Your task to perform on an android device: stop showing notifications on the lock screen Image 0: 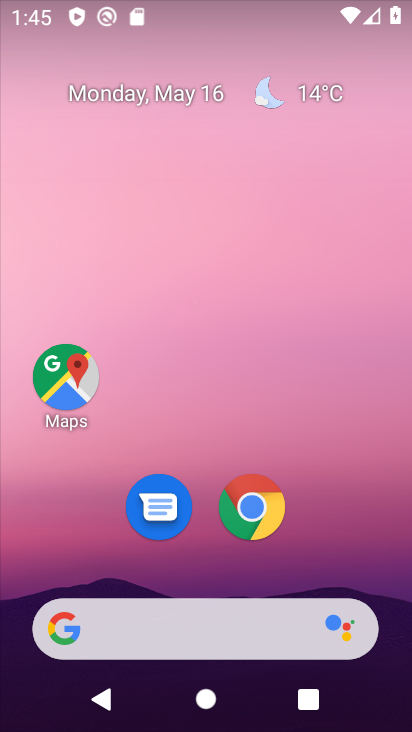
Step 0: drag from (193, 570) to (223, 135)
Your task to perform on an android device: stop showing notifications on the lock screen Image 1: 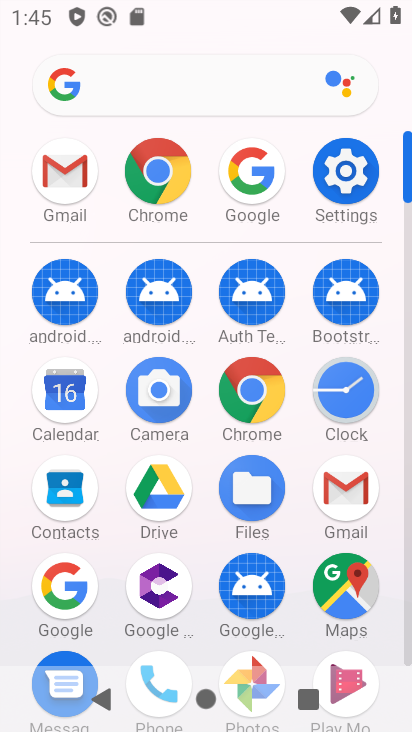
Step 1: click (333, 190)
Your task to perform on an android device: stop showing notifications on the lock screen Image 2: 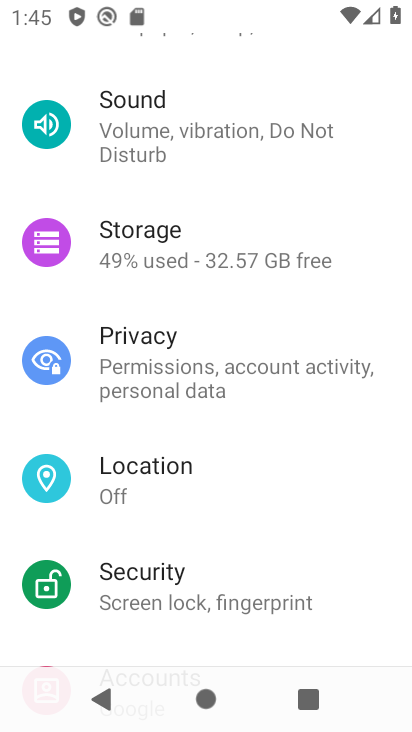
Step 2: click (345, 186)
Your task to perform on an android device: stop showing notifications on the lock screen Image 3: 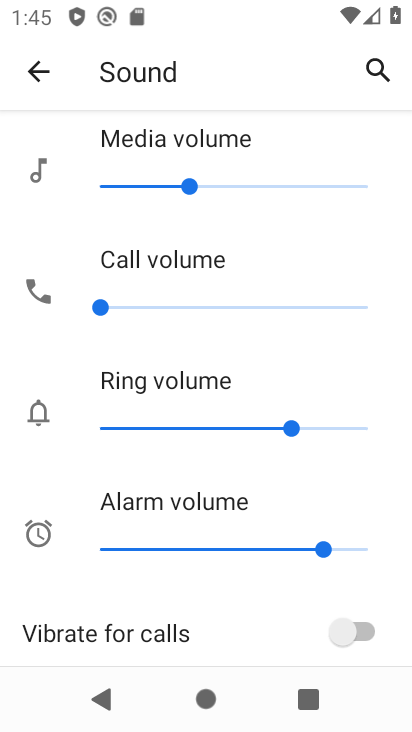
Step 3: click (48, 78)
Your task to perform on an android device: stop showing notifications on the lock screen Image 4: 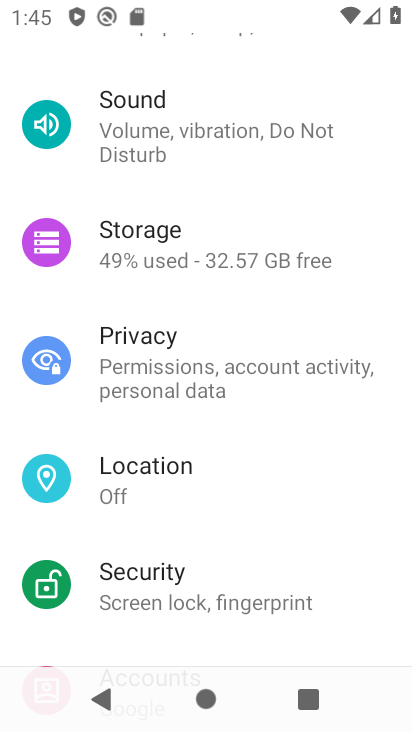
Step 4: drag from (215, 514) to (218, 630)
Your task to perform on an android device: stop showing notifications on the lock screen Image 5: 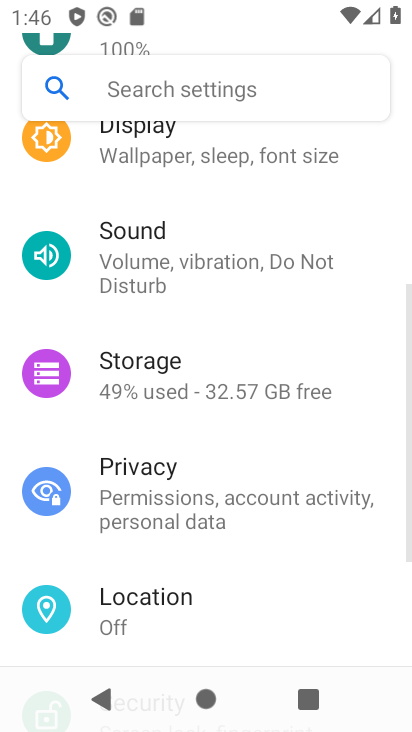
Step 5: drag from (249, 266) to (223, 579)
Your task to perform on an android device: stop showing notifications on the lock screen Image 6: 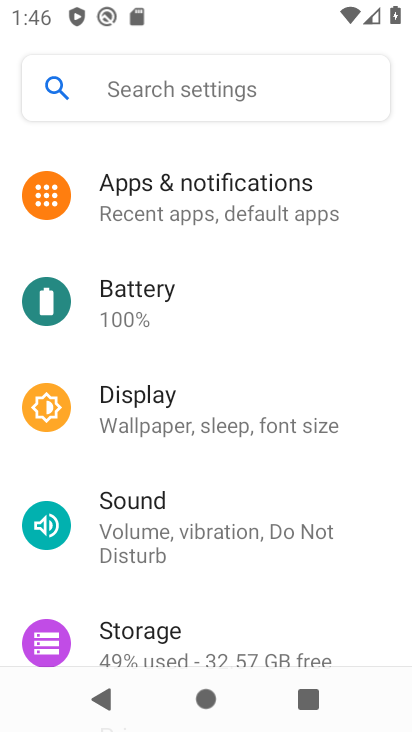
Step 6: drag from (235, 240) to (252, 575)
Your task to perform on an android device: stop showing notifications on the lock screen Image 7: 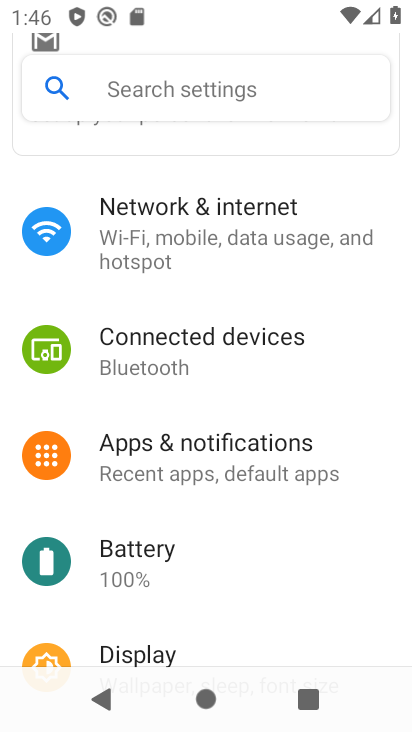
Step 7: drag from (241, 225) to (232, 571)
Your task to perform on an android device: stop showing notifications on the lock screen Image 8: 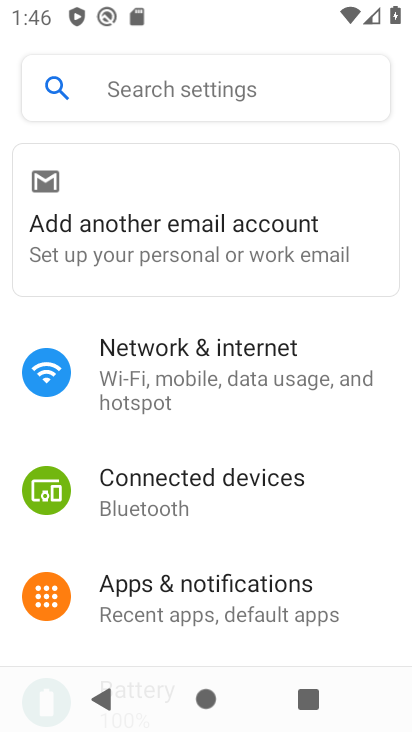
Step 8: click (209, 598)
Your task to perform on an android device: stop showing notifications on the lock screen Image 9: 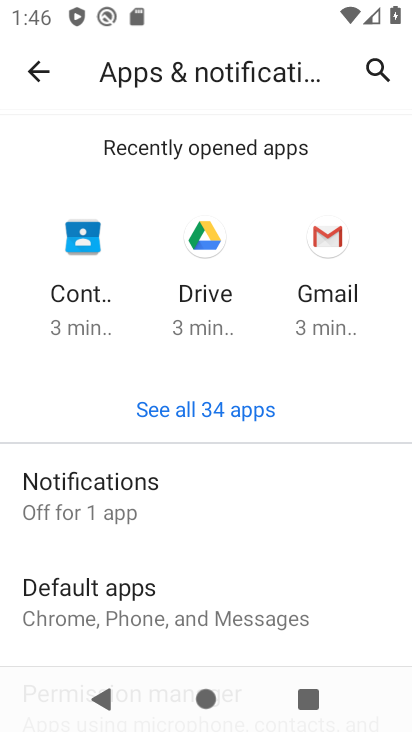
Step 9: click (189, 526)
Your task to perform on an android device: stop showing notifications on the lock screen Image 10: 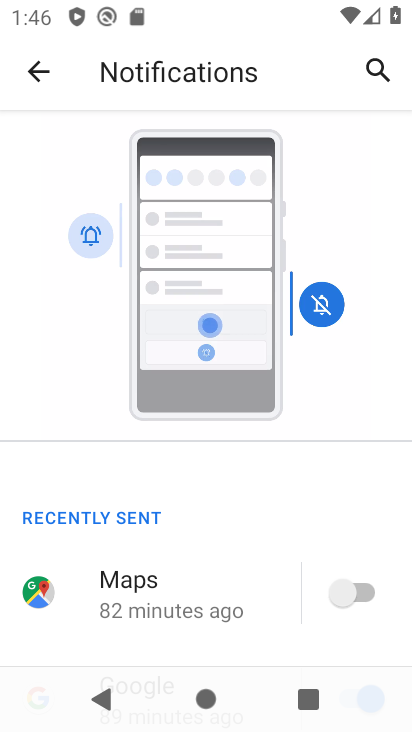
Step 10: drag from (203, 559) to (302, 151)
Your task to perform on an android device: stop showing notifications on the lock screen Image 11: 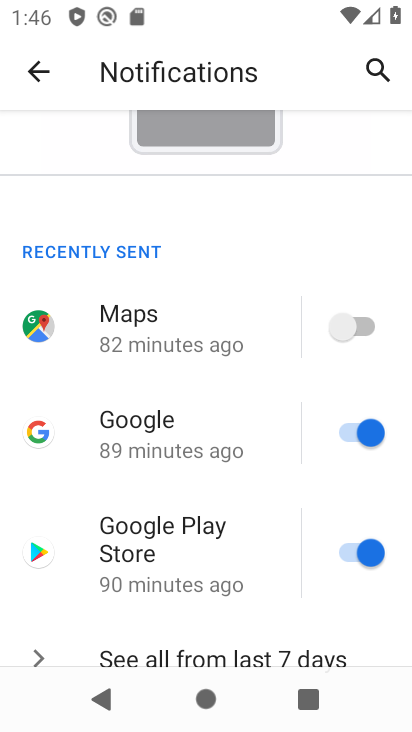
Step 11: drag from (211, 531) to (286, 161)
Your task to perform on an android device: stop showing notifications on the lock screen Image 12: 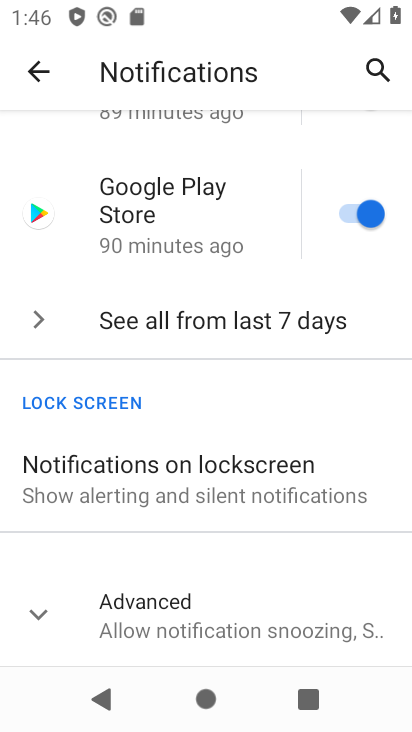
Step 12: click (201, 499)
Your task to perform on an android device: stop showing notifications on the lock screen Image 13: 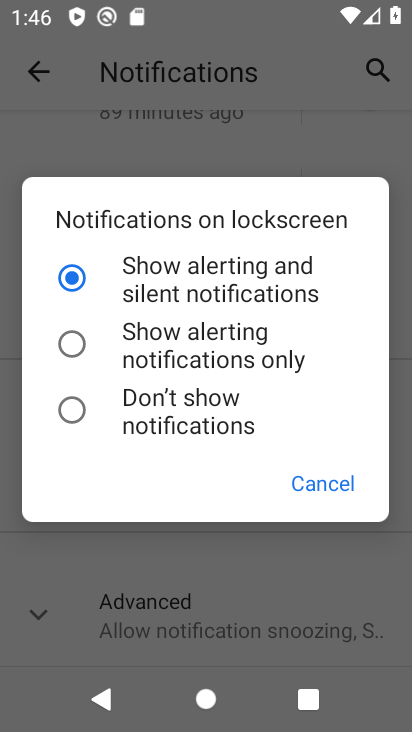
Step 13: click (203, 418)
Your task to perform on an android device: stop showing notifications on the lock screen Image 14: 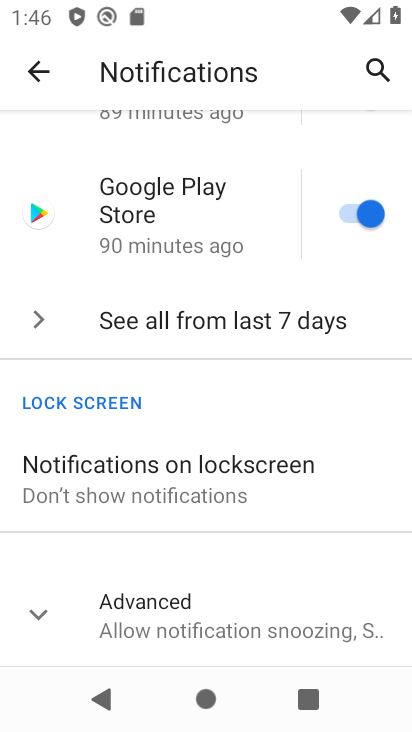
Step 14: task complete